Your task to perform on an android device: turn on improve location accuracy Image 0: 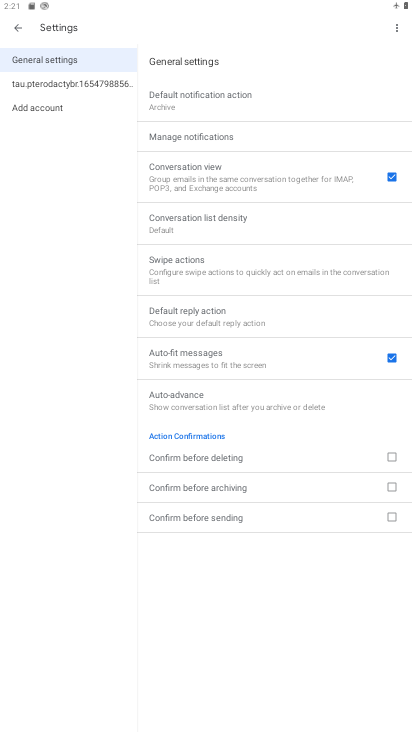
Step 0: press home button
Your task to perform on an android device: turn on improve location accuracy Image 1: 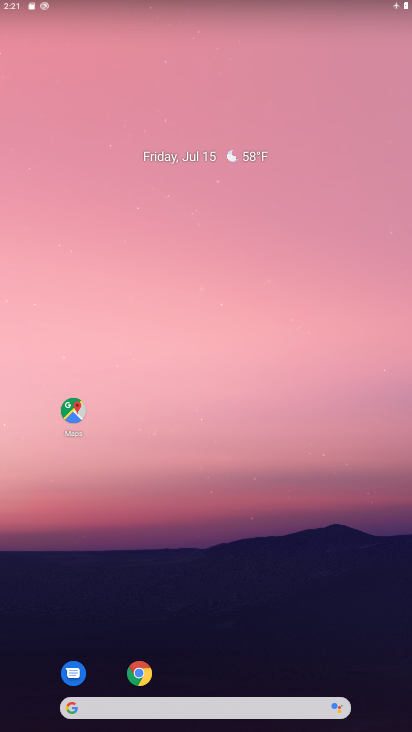
Step 1: drag from (380, 694) to (354, 193)
Your task to perform on an android device: turn on improve location accuracy Image 2: 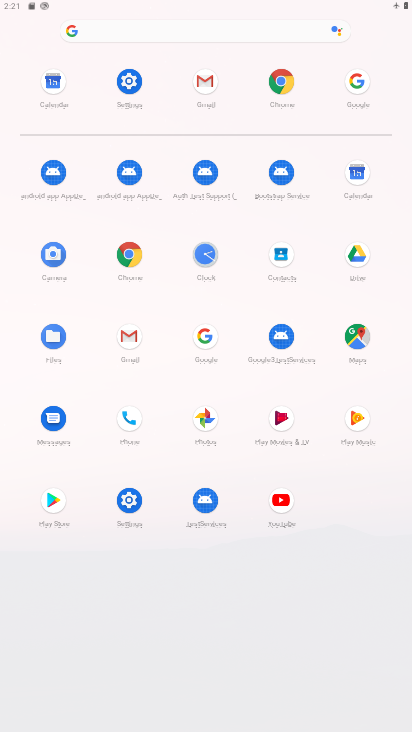
Step 2: click (122, 95)
Your task to perform on an android device: turn on improve location accuracy Image 3: 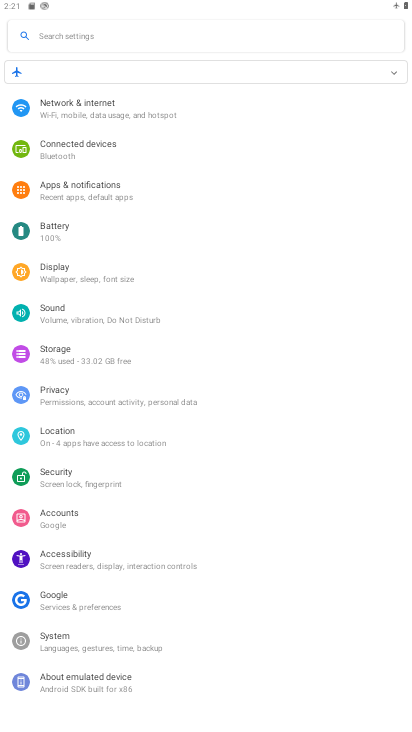
Step 3: click (50, 441)
Your task to perform on an android device: turn on improve location accuracy Image 4: 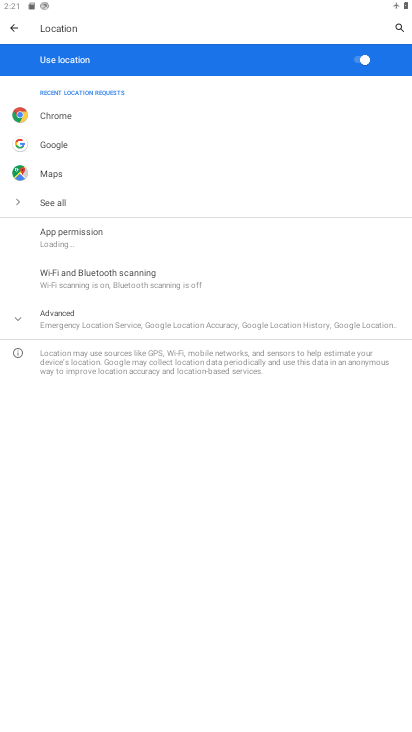
Step 4: click (24, 316)
Your task to perform on an android device: turn on improve location accuracy Image 5: 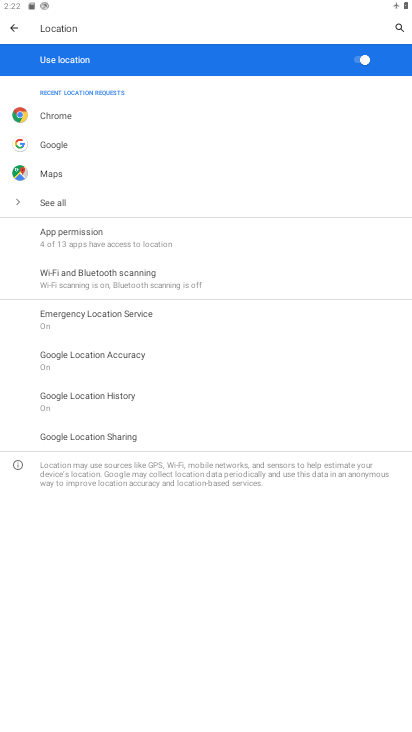
Step 5: click (104, 363)
Your task to perform on an android device: turn on improve location accuracy Image 6: 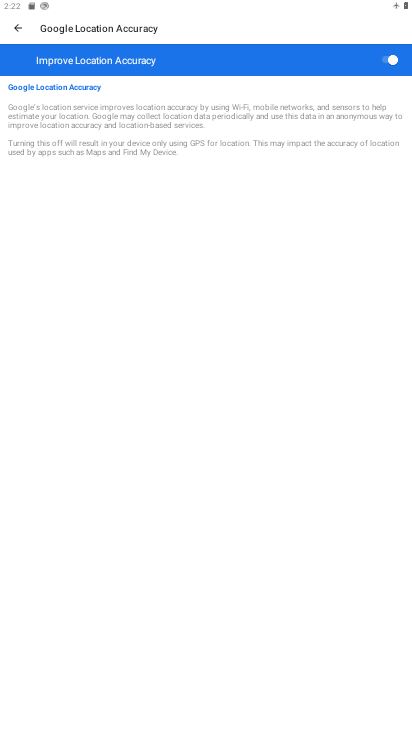
Step 6: task complete